Your task to perform on an android device: Go to notification settings Image 0: 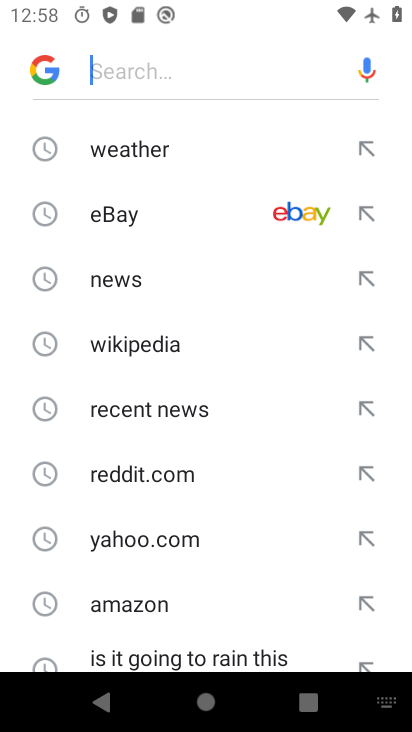
Step 0: press home button
Your task to perform on an android device: Go to notification settings Image 1: 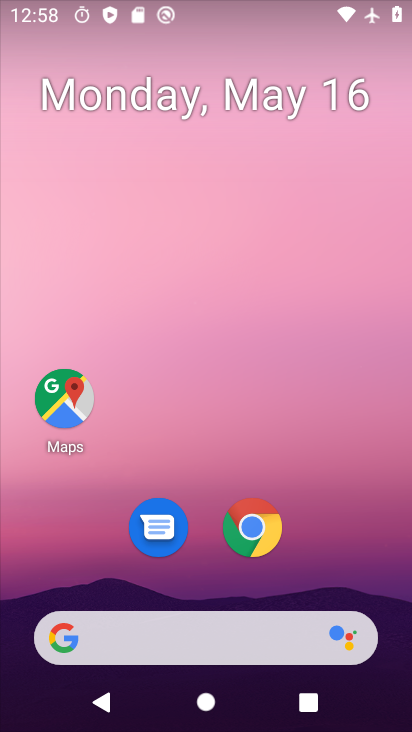
Step 1: drag from (191, 639) to (375, 114)
Your task to perform on an android device: Go to notification settings Image 2: 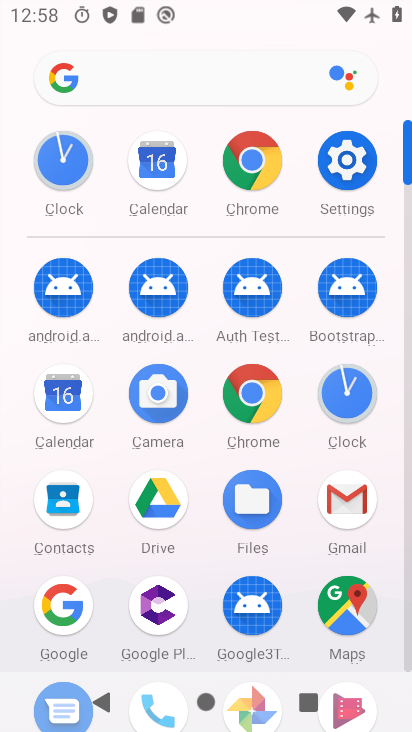
Step 2: click (346, 167)
Your task to perform on an android device: Go to notification settings Image 3: 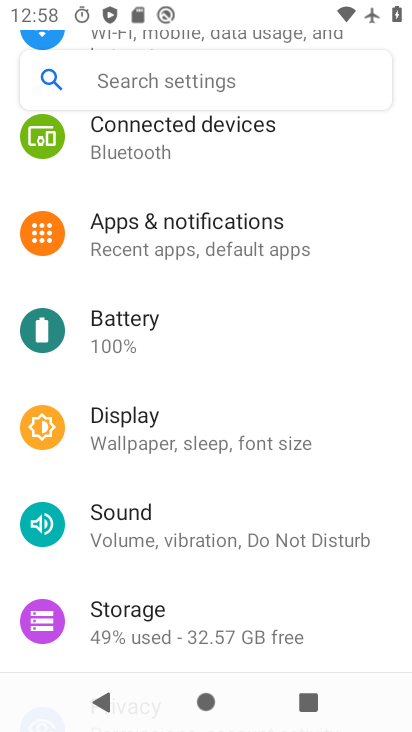
Step 3: click (221, 238)
Your task to perform on an android device: Go to notification settings Image 4: 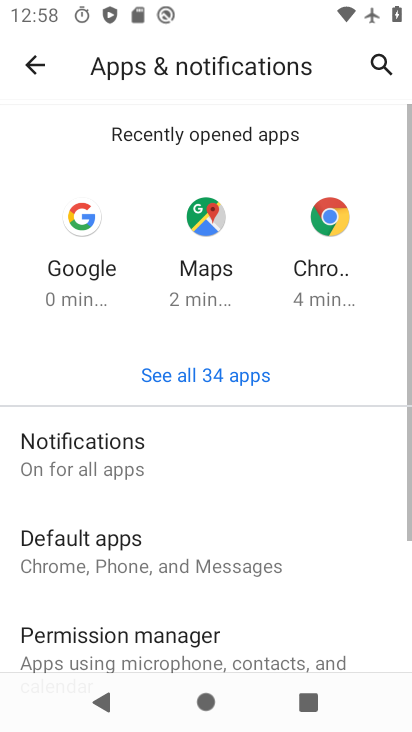
Step 4: click (113, 466)
Your task to perform on an android device: Go to notification settings Image 5: 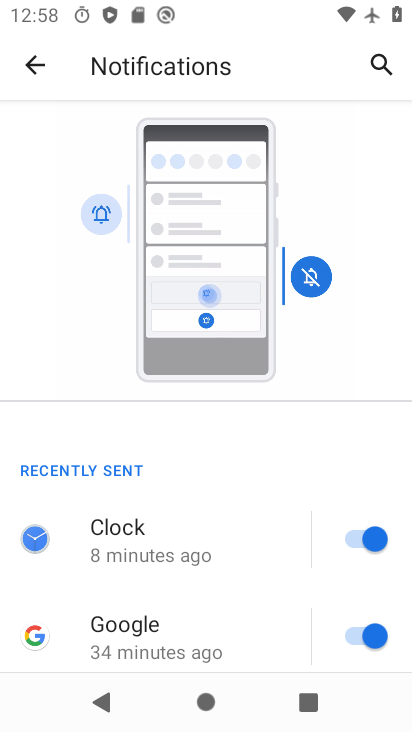
Step 5: task complete